Your task to perform on an android device: Open wifi settings Image 0: 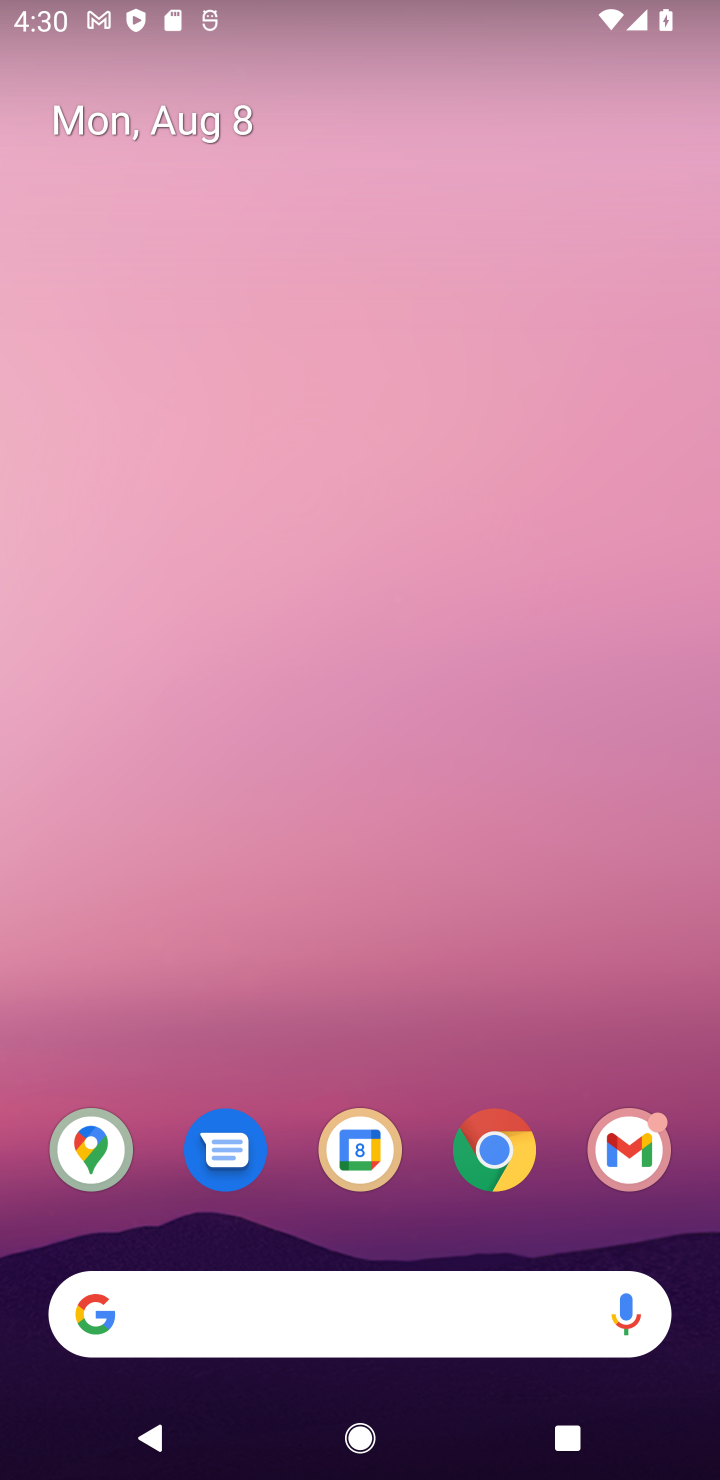
Step 0: drag from (444, 1243) to (334, 198)
Your task to perform on an android device: Open wifi settings Image 1: 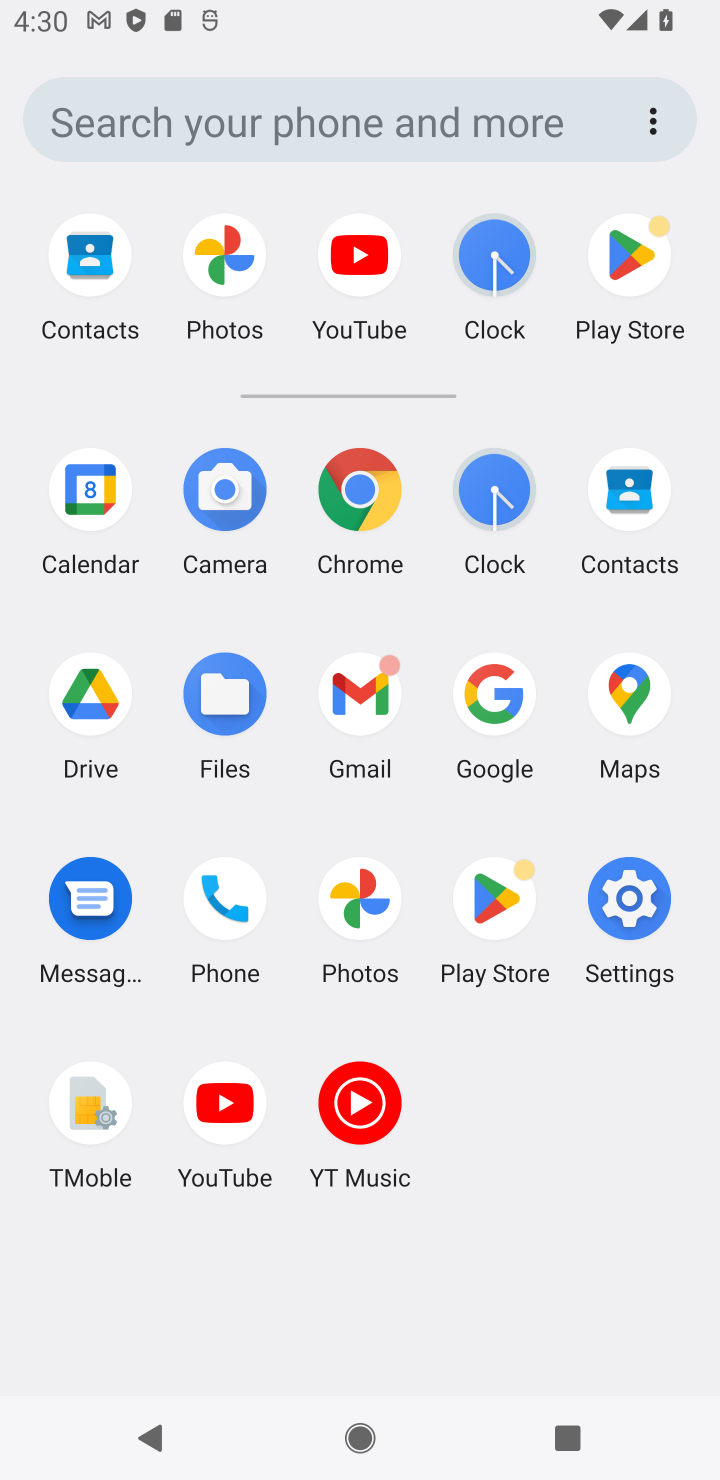
Step 1: click (634, 916)
Your task to perform on an android device: Open wifi settings Image 2: 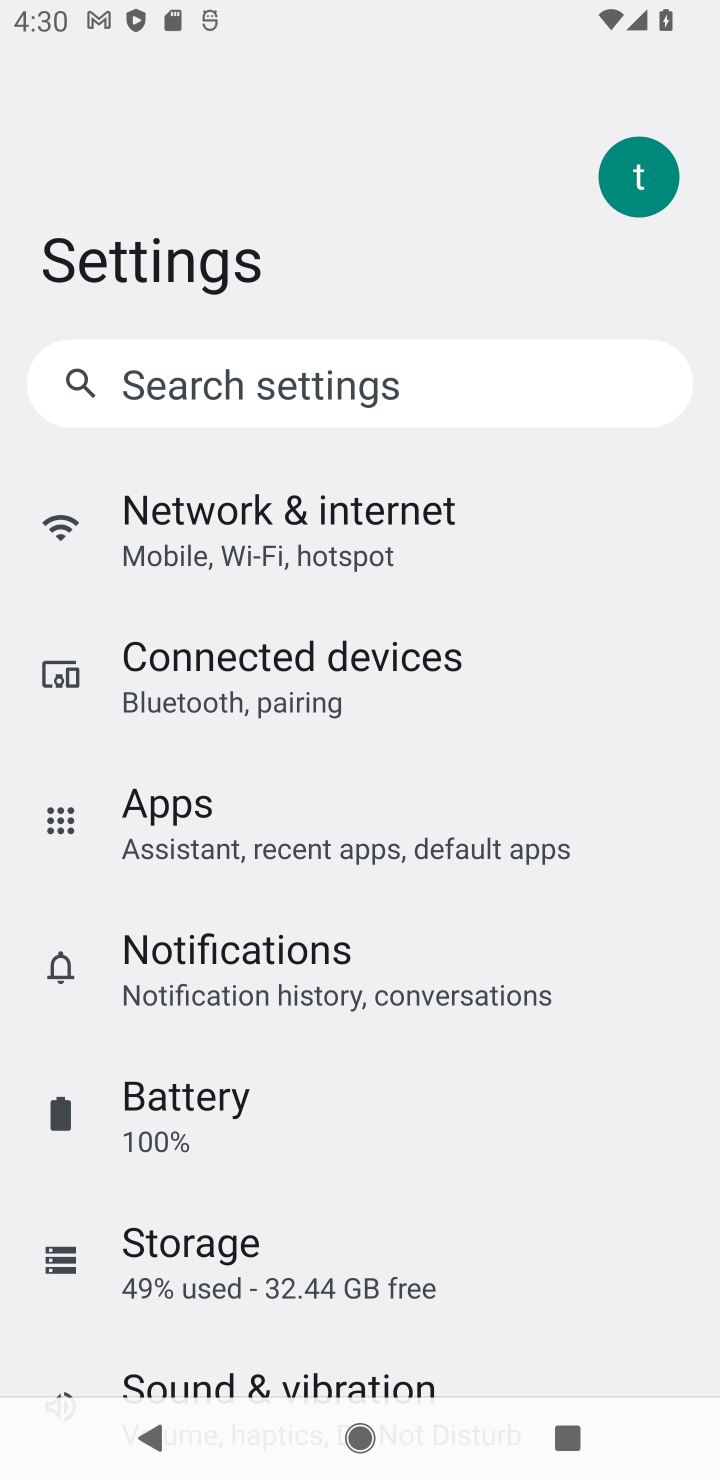
Step 2: click (240, 536)
Your task to perform on an android device: Open wifi settings Image 3: 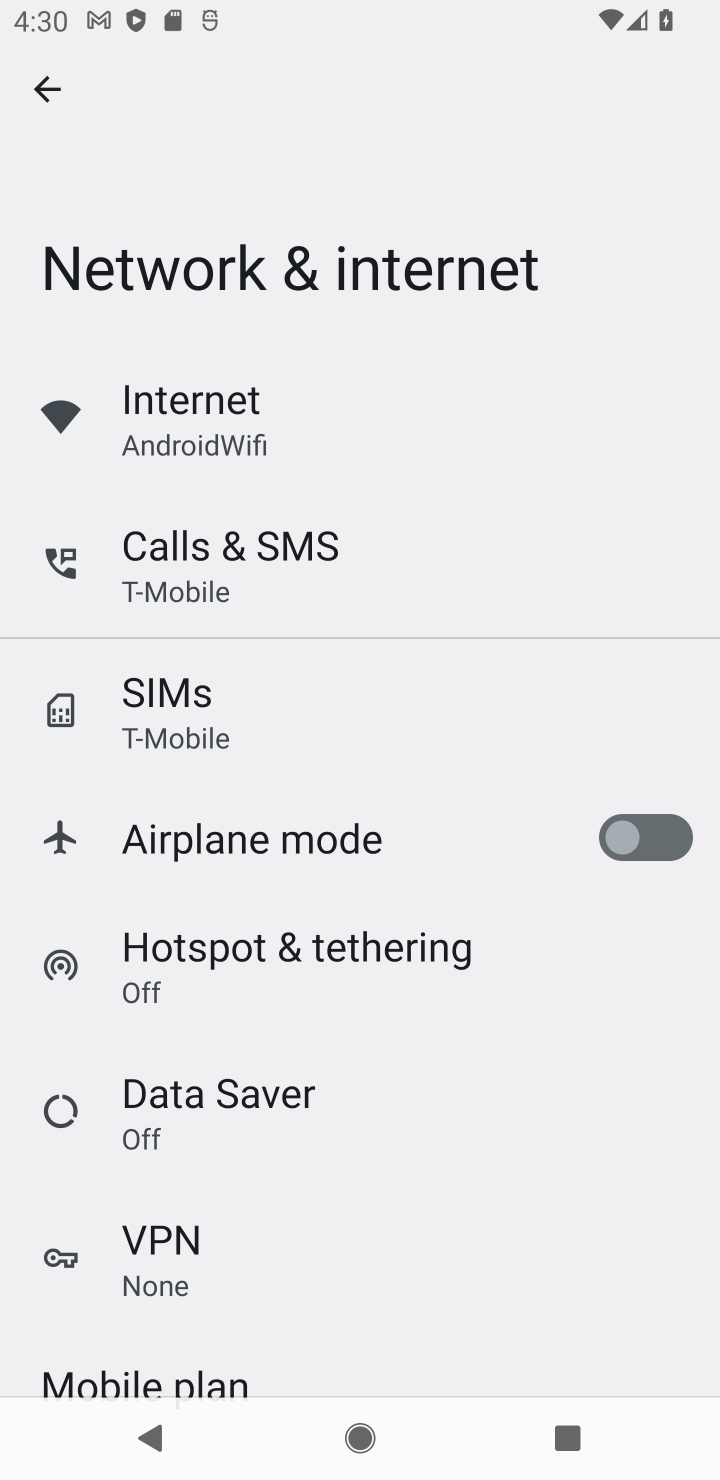
Step 3: click (240, 390)
Your task to perform on an android device: Open wifi settings Image 4: 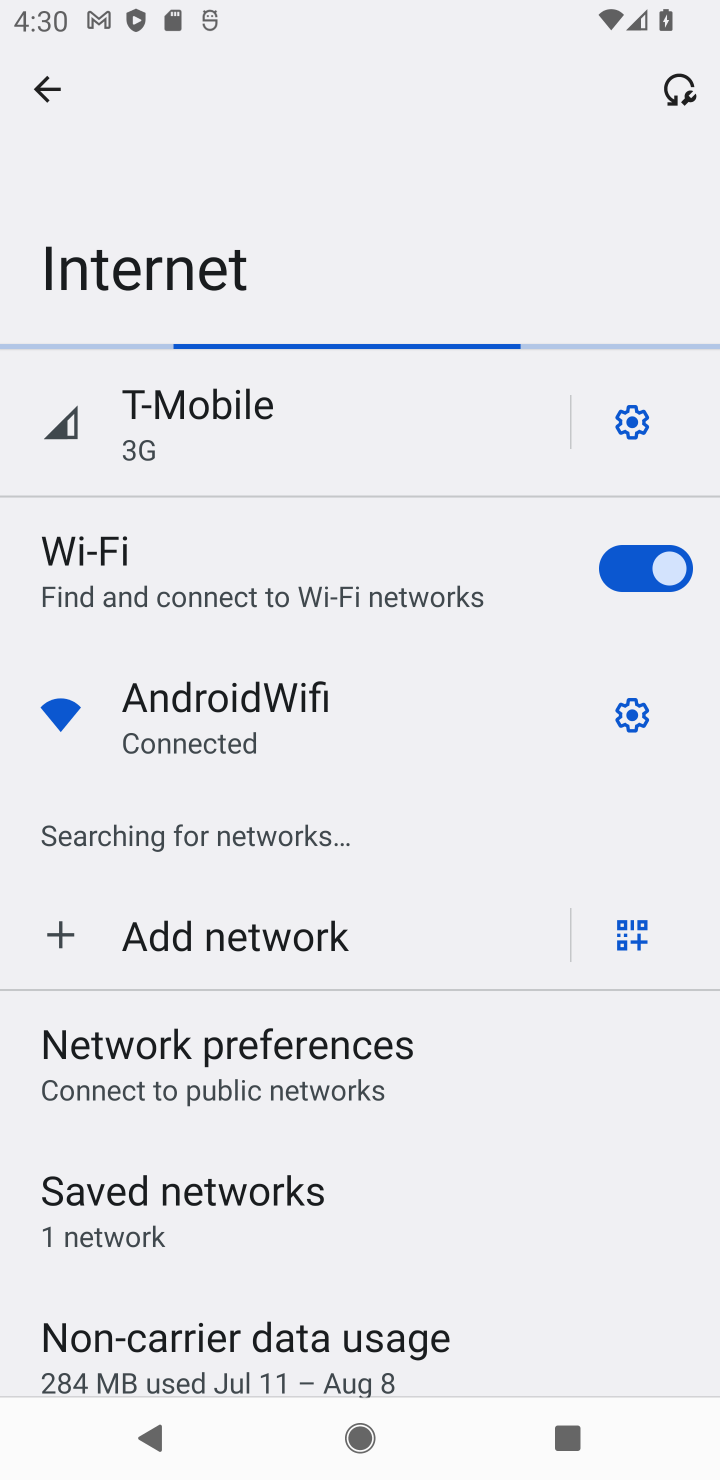
Step 4: task complete